Your task to perform on an android device: Open Google Chrome and click the shortcut for Amazon.com Image 0: 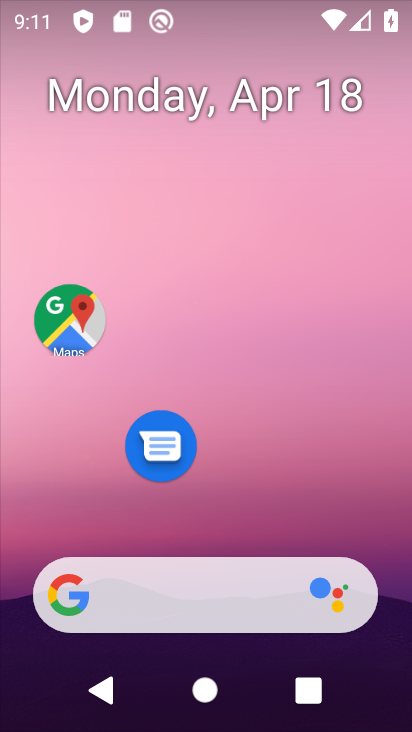
Step 0: drag from (226, 503) to (293, 42)
Your task to perform on an android device: Open Google Chrome and click the shortcut for Amazon.com Image 1: 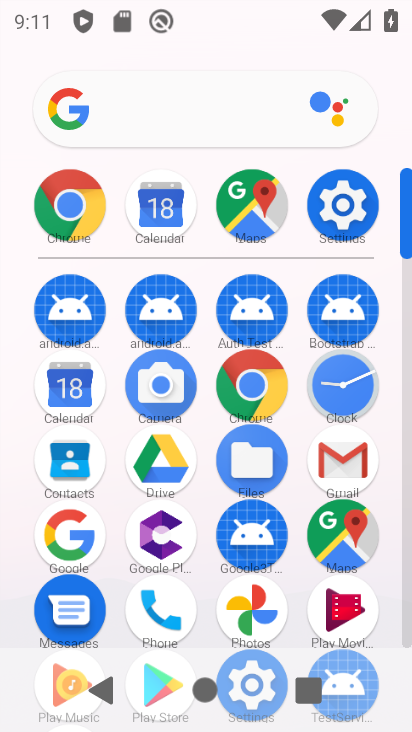
Step 1: click (243, 380)
Your task to perform on an android device: Open Google Chrome and click the shortcut for Amazon.com Image 2: 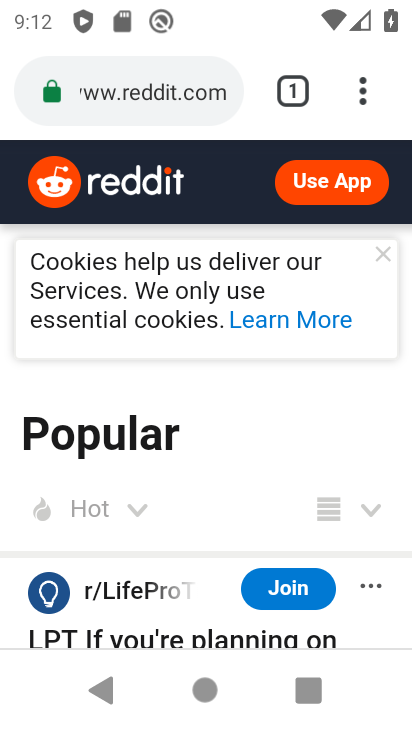
Step 2: click (302, 83)
Your task to perform on an android device: Open Google Chrome and click the shortcut for Amazon.com Image 3: 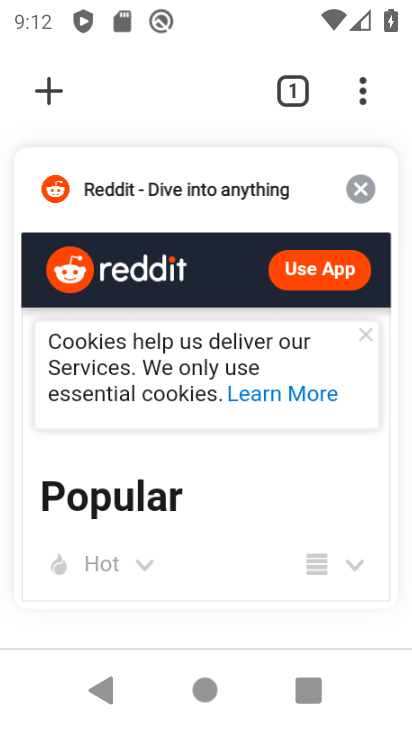
Step 3: click (48, 91)
Your task to perform on an android device: Open Google Chrome and click the shortcut for Amazon.com Image 4: 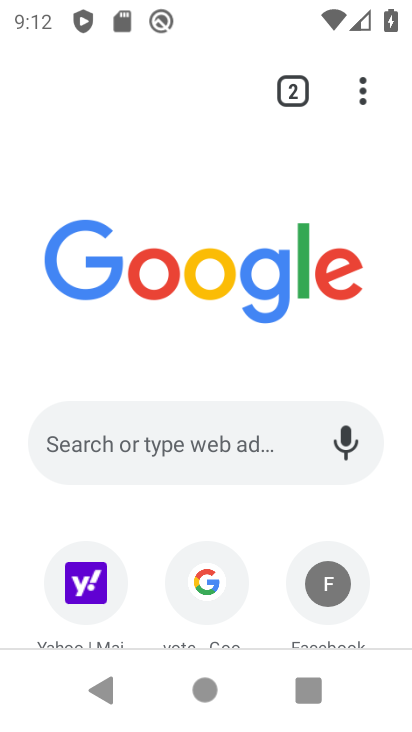
Step 4: drag from (257, 544) to (296, 269)
Your task to perform on an android device: Open Google Chrome and click the shortcut for Amazon.com Image 5: 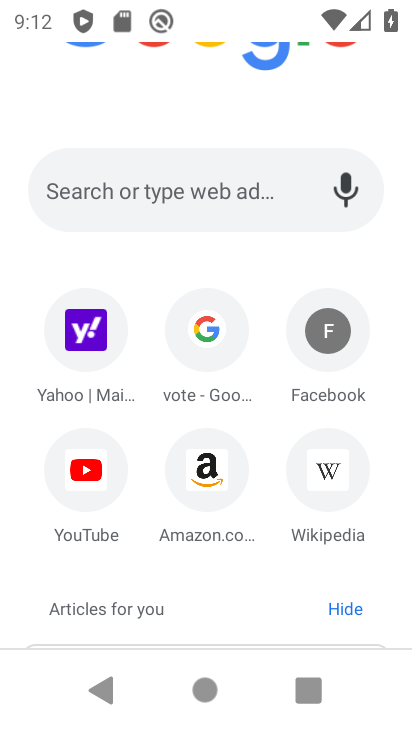
Step 5: click (209, 458)
Your task to perform on an android device: Open Google Chrome and click the shortcut for Amazon.com Image 6: 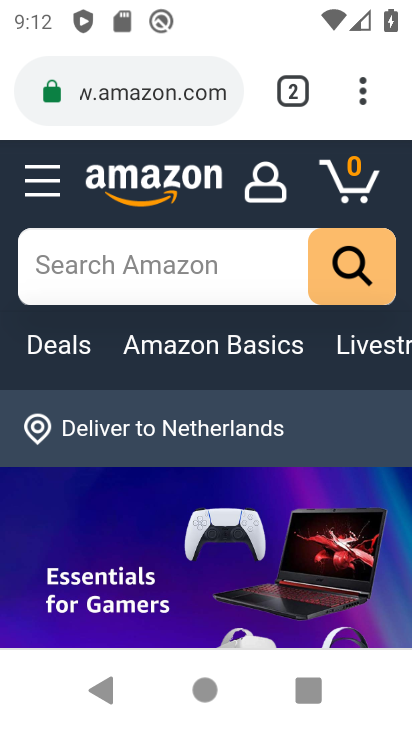
Step 6: task complete